Your task to perform on an android device: turn off location history Image 0: 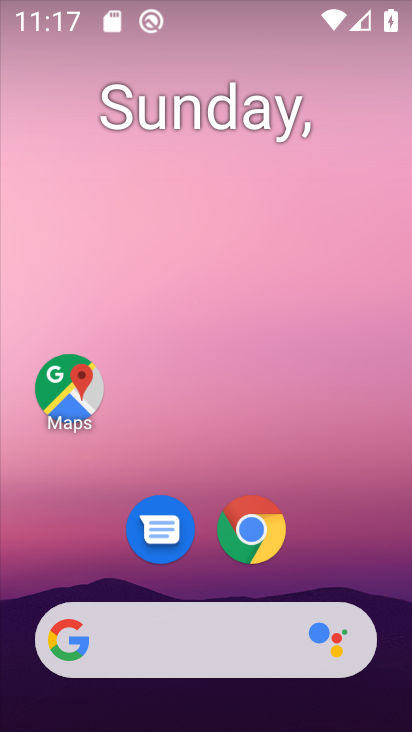
Step 0: drag from (224, 592) to (179, 0)
Your task to perform on an android device: turn off location history Image 1: 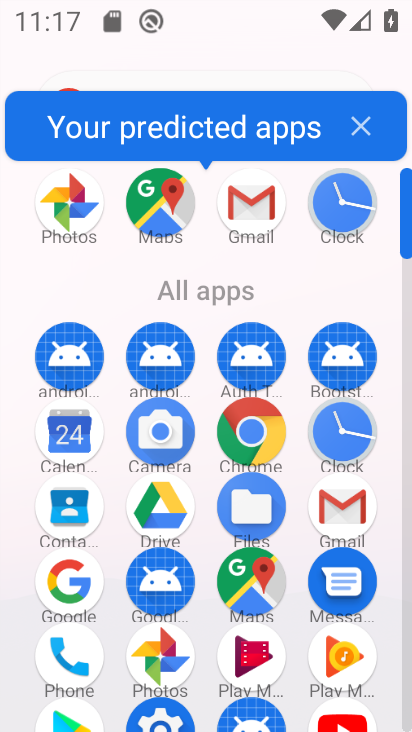
Step 1: drag from (206, 568) to (155, 121)
Your task to perform on an android device: turn off location history Image 2: 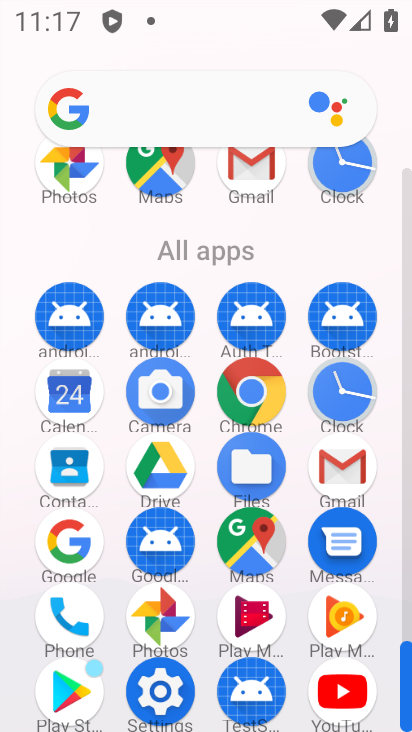
Step 2: click (164, 687)
Your task to perform on an android device: turn off location history Image 3: 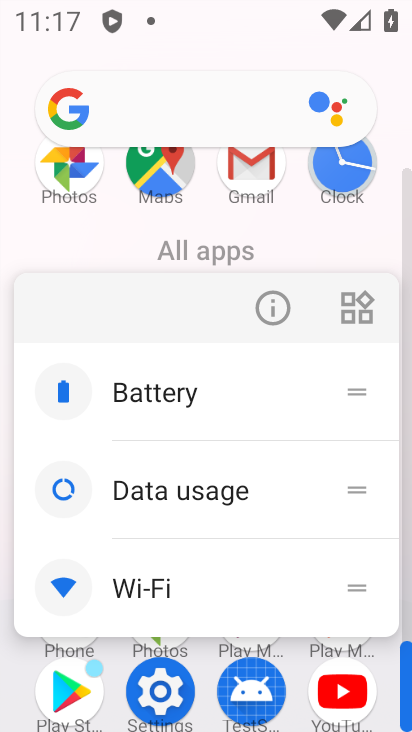
Step 3: click (167, 692)
Your task to perform on an android device: turn off location history Image 4: 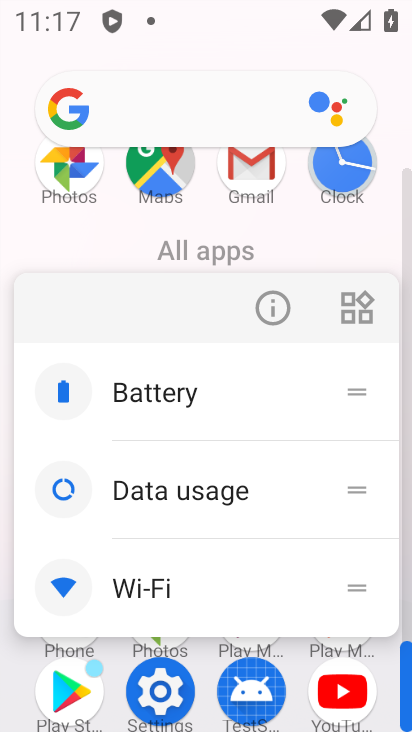
Step 4: click (159, 701)
Your task to perform on an android device: turn off location history Image 5: 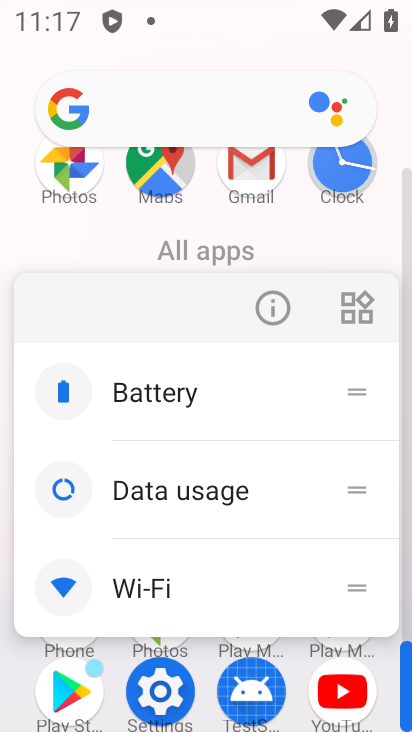
Step 5: click (159, 701)
Your task to perform on an android device: turn off location history Image 6: 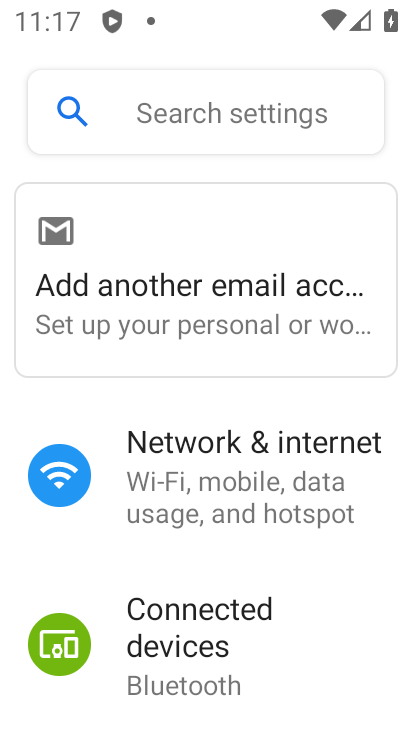
Step 6: drag from (230, 617) to (228, 9)
Your task to perform on an android device: turn off location history Image 7: 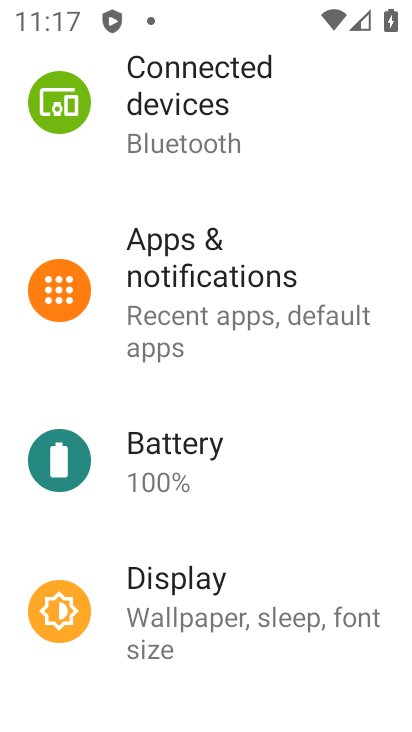
Step 7: drag from (241, 592) to (220, 50)
Your task to perform on an android device: turn off location history Image 8: 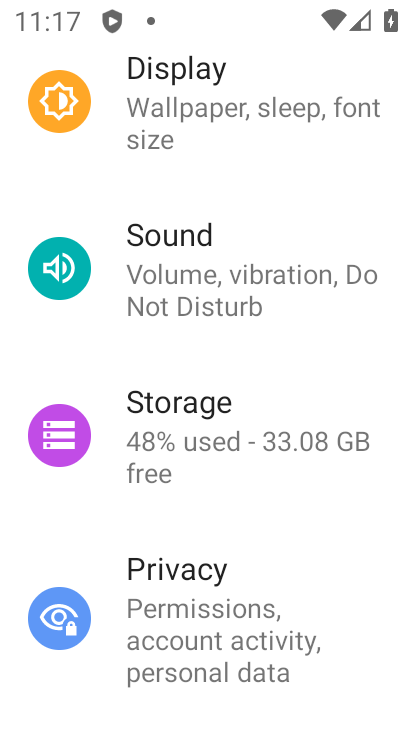
Step 8: drag from (210, 640) to (133, 27)
Your task to perform on an android device: turn off location history Image 9: 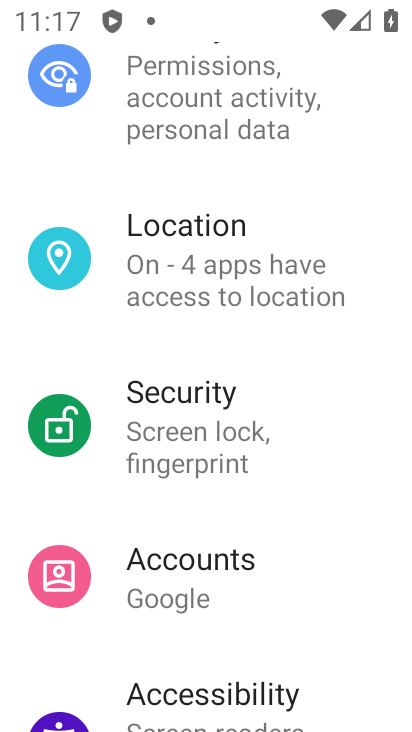
Step 9: click (147, 286)
Your task to perform on an android device: turn off location history Image 10: 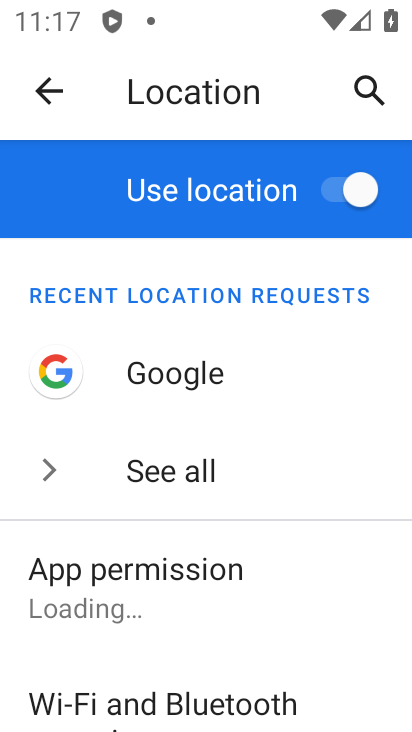
Step 10: drag from (255, 615) to (206, 77)
Your task to perform on an android device: turn off location history Image 11: 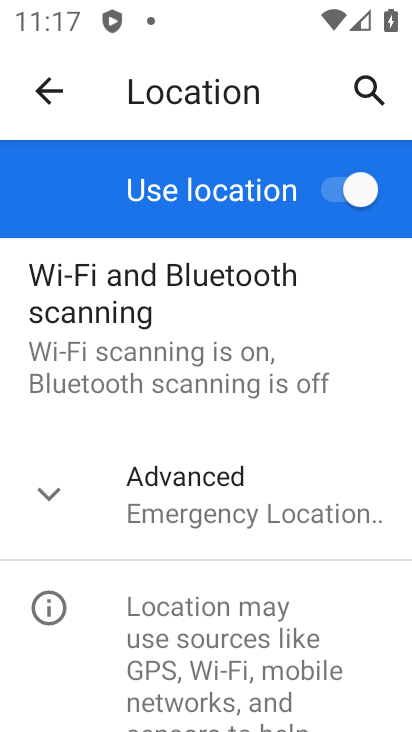
Step 11: click (212, 519)
Your task to perform on an android device: turn off location history Image 12: 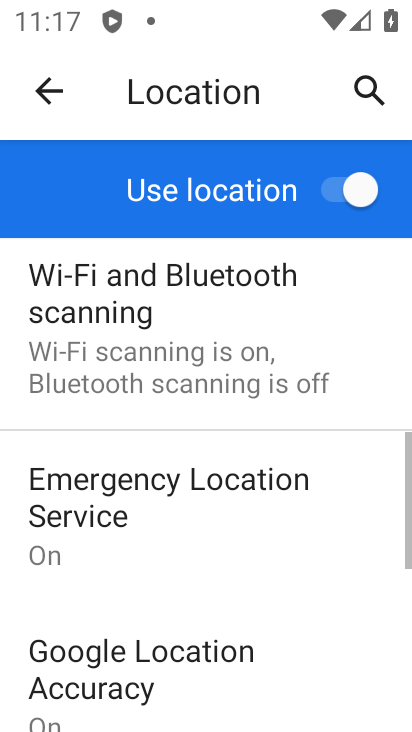
Step 12: drag from (217, 620) to (171, 129)
Your task to perform on an android device: turn off location history Image 13: 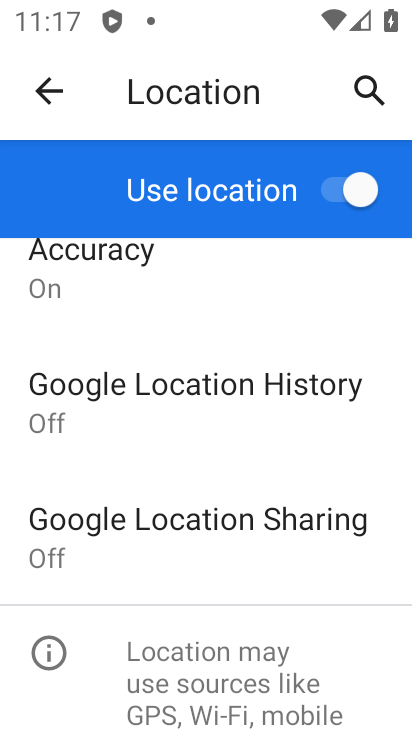
Step 13: click (198, 421)
Your task to perform on an android device: turn off location history Image 14: 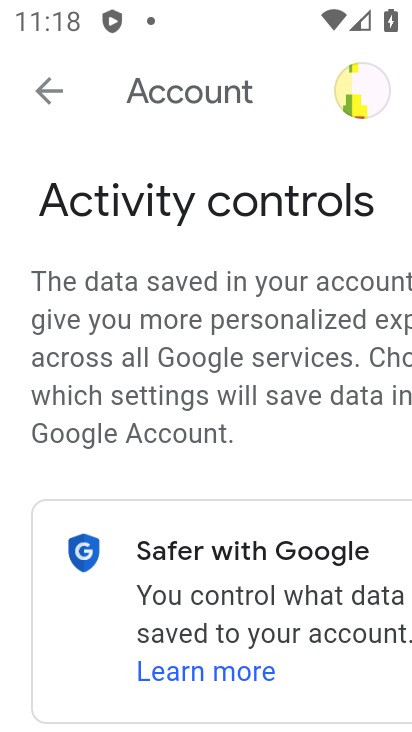
Step 14: task complete